Your task to perform on an android device: toggle airplane mode Image 0: 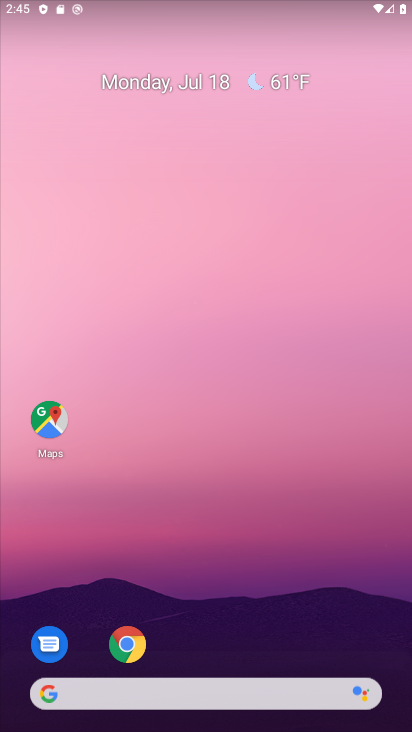
Step 0: drag from (297, 9) to (381, 631)
Your task to perform on an android device: toggle airplane mode Image 1: 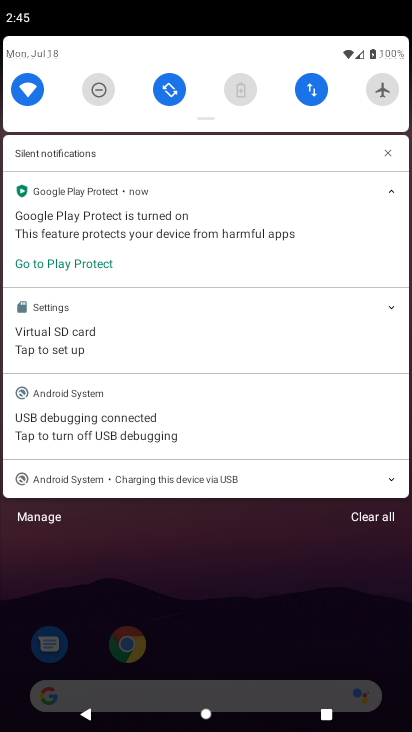
Step 1: click (379, 95)
Your task to perform on an android device: toggle airplane mode Image 2: 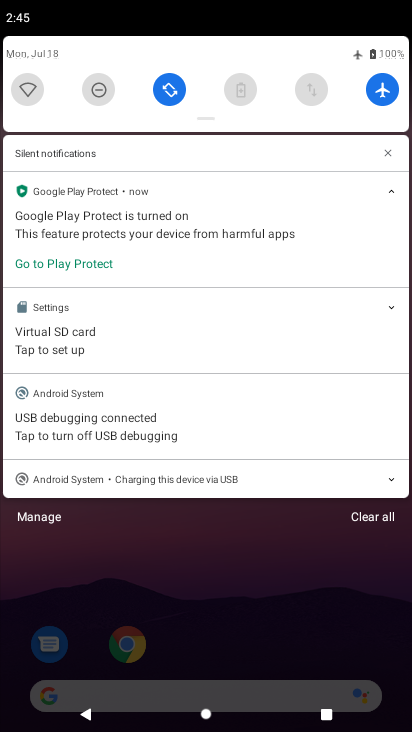
Step 2: task complete